Your task to perform on an android device: Open Chrome and go to settings Image 0: 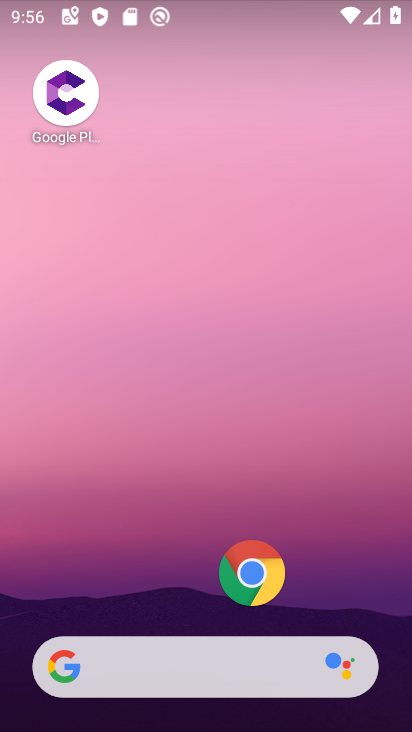
Step 0: click (238, 571)
Your task to perform on an android device: Open Chrome and go to settings Image 1: 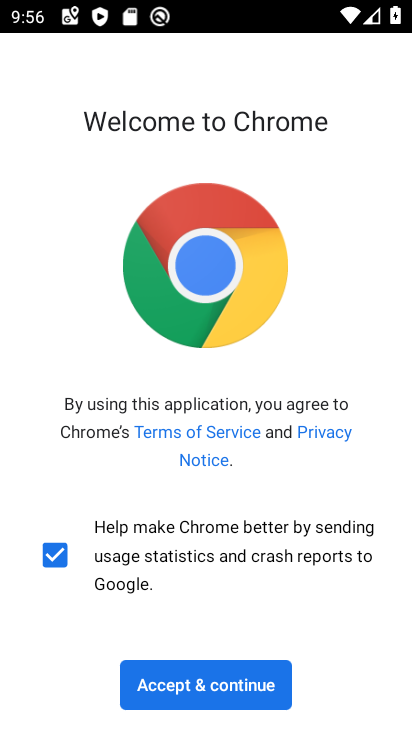
Step 1: click (208, 699)
Your task to perform on an android device: Open Chrome and go to settings Image 2: 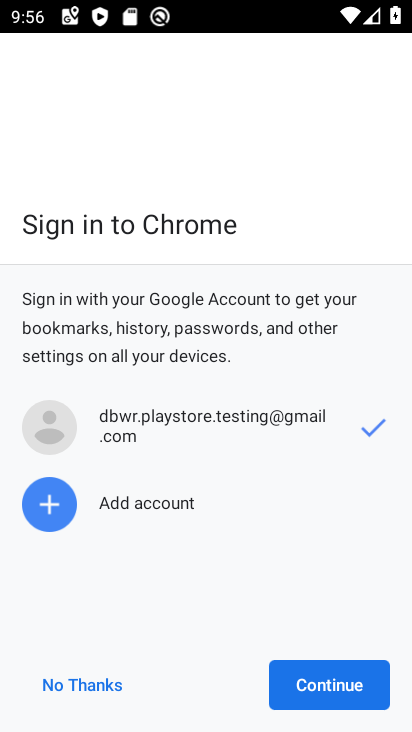
Step 2: click (334, 684)
Your task to perform on an android device: Open Chrome and go to settings Image 3: 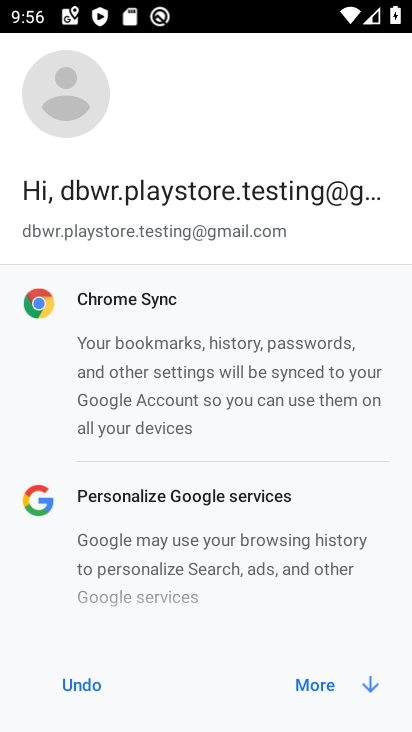
Step 3: click (334, 684)
Your task to perform on an android device: Open Chrome and go to settings Image 4: 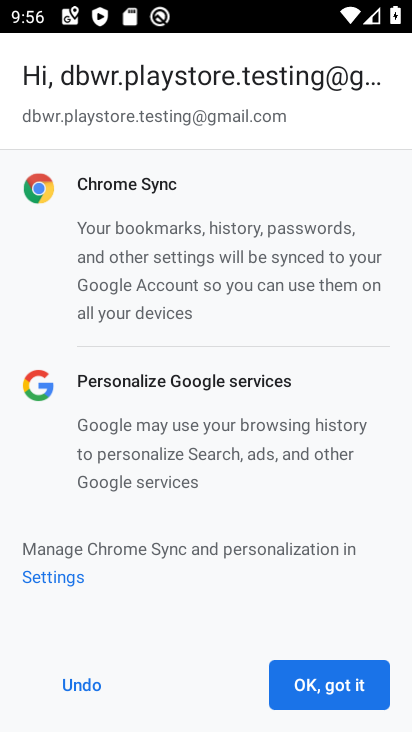
Step 4: click (334, 684)
Your task to perform on an android device: Open Chrome and go to settings Image 5: 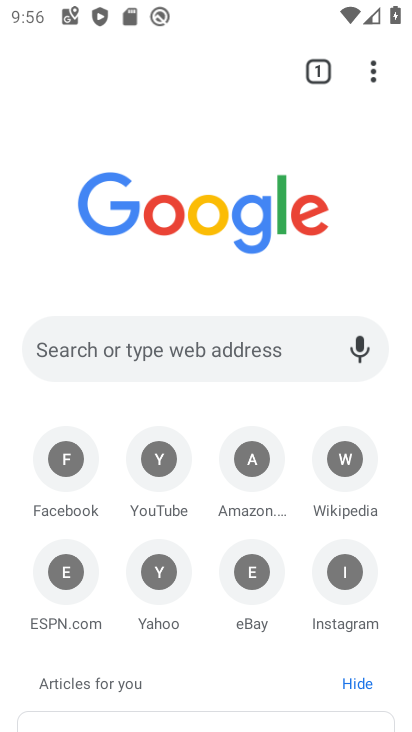
Step 5: click (389, 60)
Your task to perform on an android device: Open Chrome and go to settings Image 6: 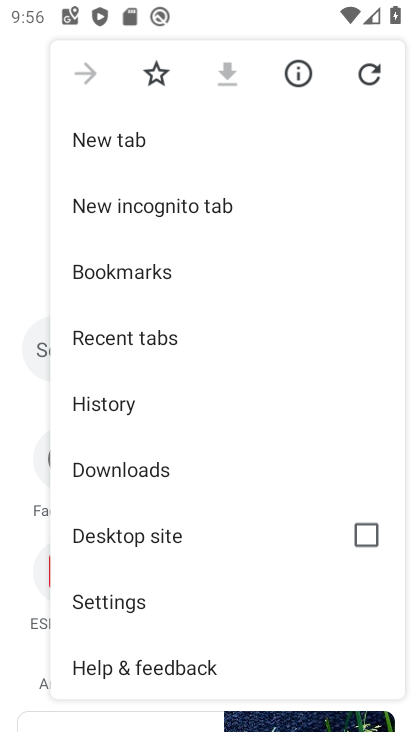
Step 6: click (143, 627)
Your task to perform on an android device: Open Chrome and go to settings Image 7: 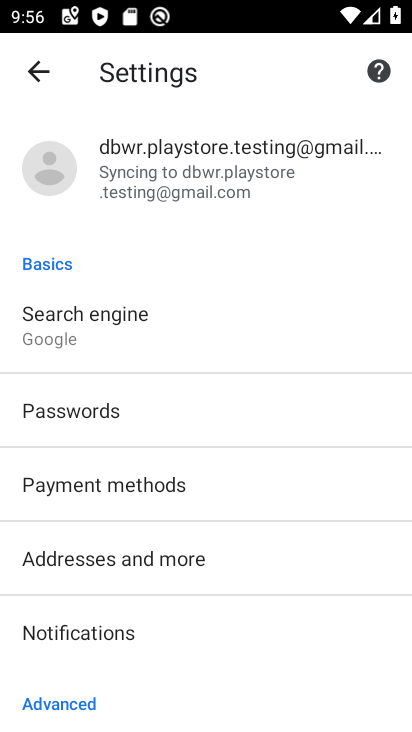
Step 7: task complete